Your task to perform on an android device: Check the weather Image 0: 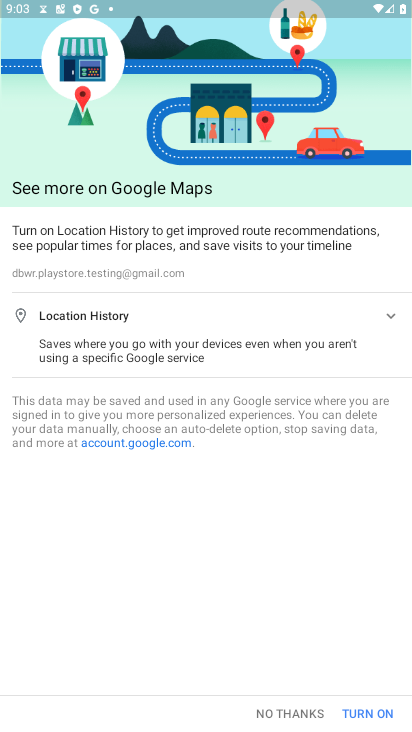
Step 0: press back button
Your task to perform on an android device: Check the weather Image 1: 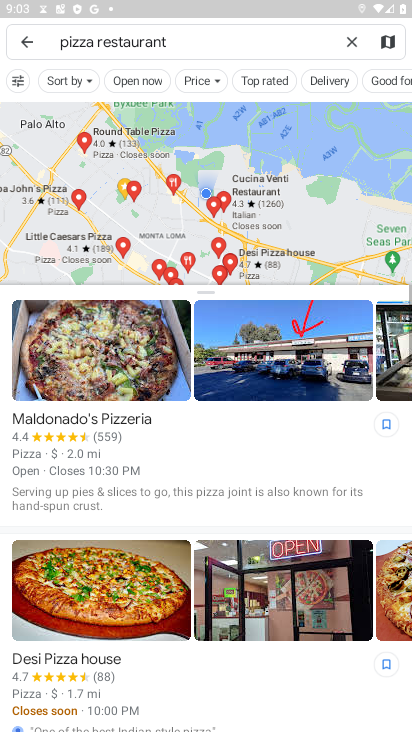
Step 1: press back button
Your task to perform on an android device: Check the weather Image 2: 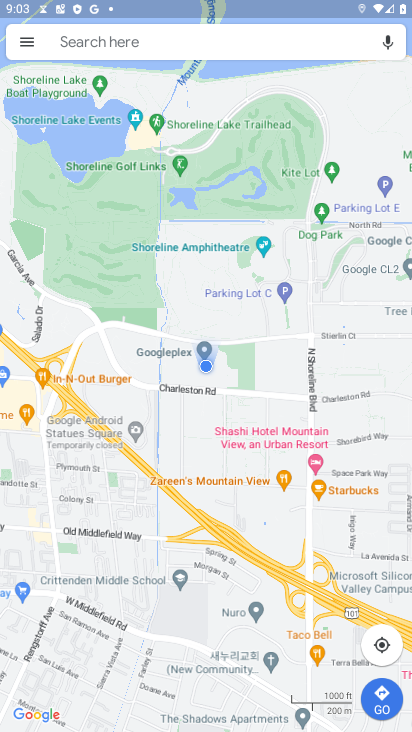
Step 2: press back button
Your task to perform on an android device: Check the weather Image 3: 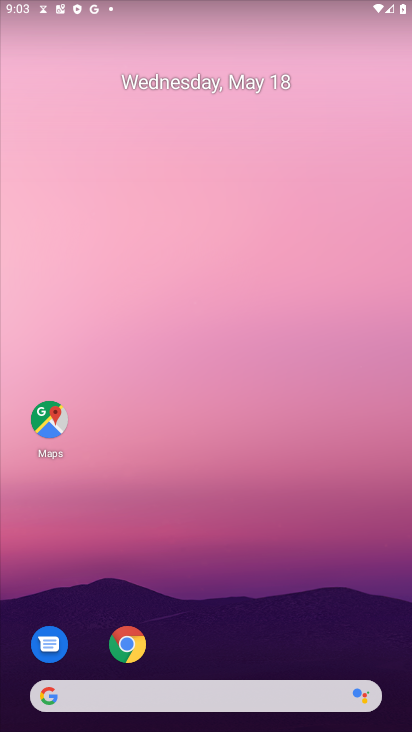
Step 3: drag from (250, 648) to (266, 219)
Your task to perform on an android device: Check the weather Image 4: 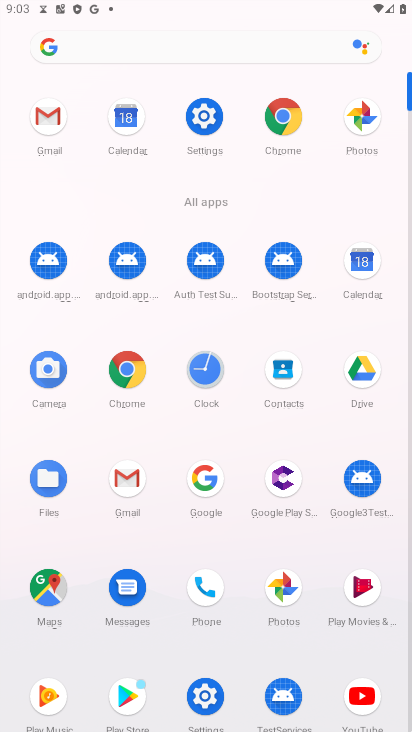
Step 4: click (201, 477)
Your task to perform on an android device: Check the weather Image 5: 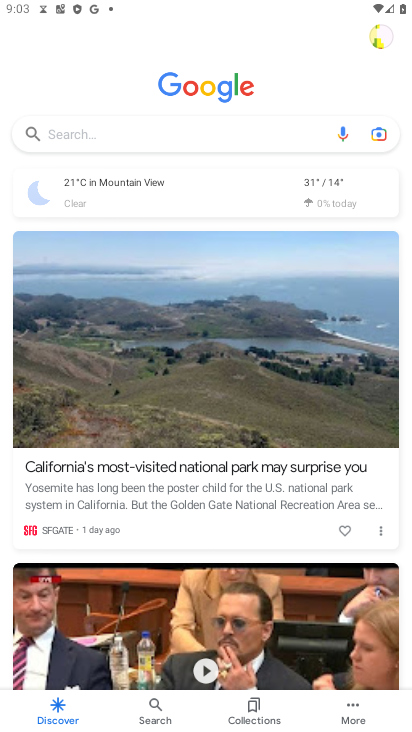
Step 5: click (164, 193)
Your task to perform on an android device: Check the weather Image 6: 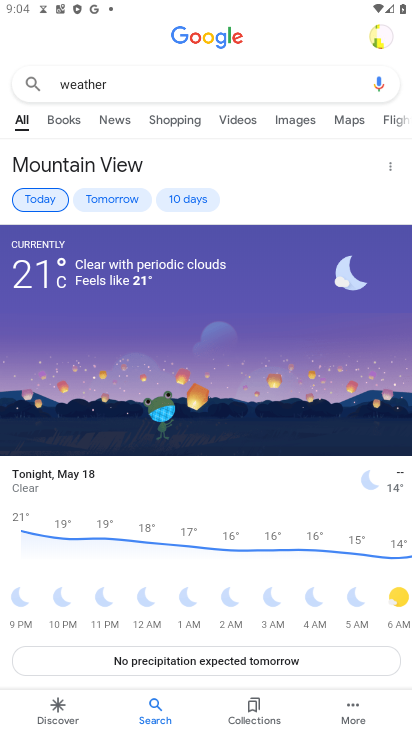
Step 6: task complete